Your task to perform on an android device: Go to network settings Image 0: 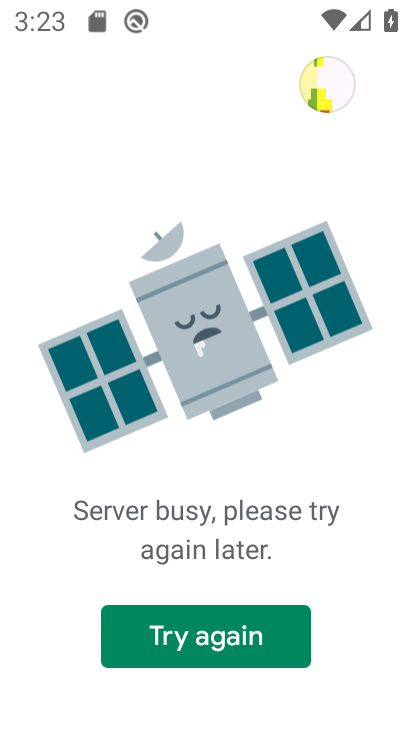
Step 0: press home button
Your task to perform on an android device: Go to network settings Image 1: 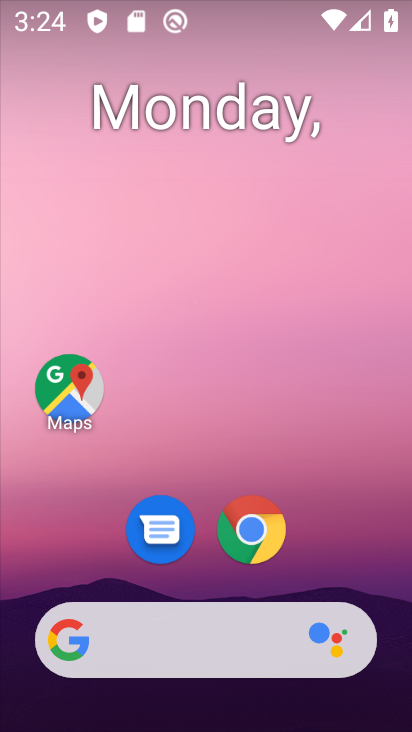
Step 1: drag from (217, 581) to (279, 233)
Your task to perform on an android device: Go to network settings Image 2: 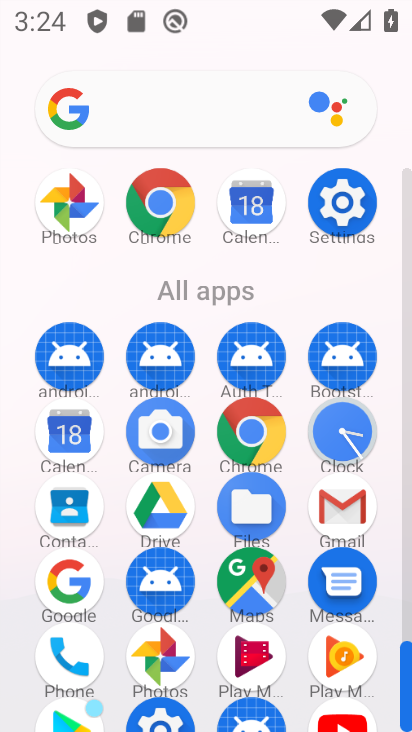
Step 2: click (332, 202)
Your task to perform on an android device: Go to network settings Image 3: 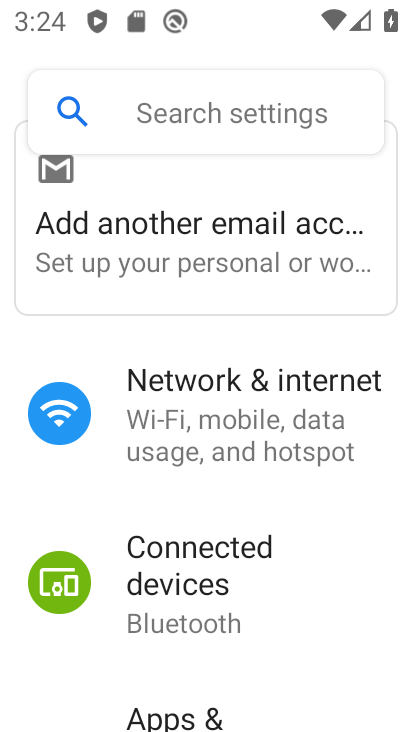
Step 3: drag from (197, 633) to (239, 450)
Your task to perform on an android device: Go to network settings Image 4: 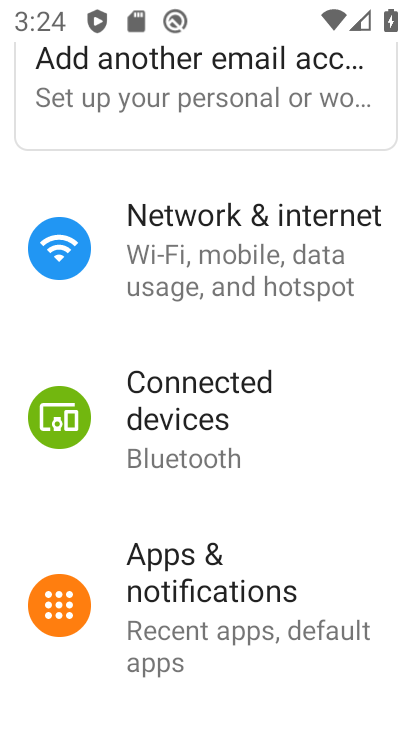
Step 4: click (222, 271)
Your task to perform on an android device: Go to network settings Image 5: 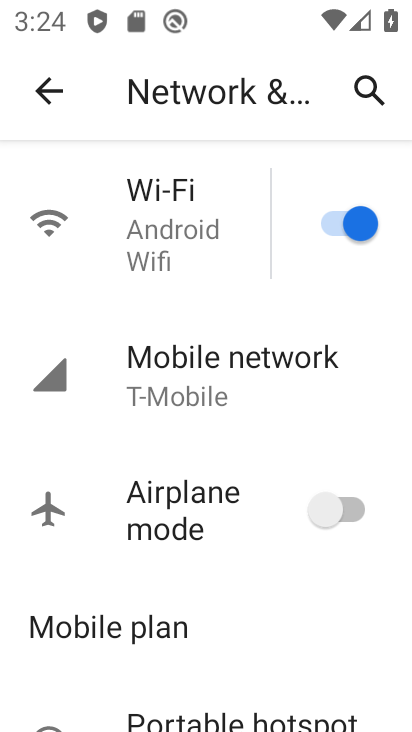
Step 5: drag from (178, 491) to (216, 300)
Your task to perform on an android device: Go to network settings Image 6: 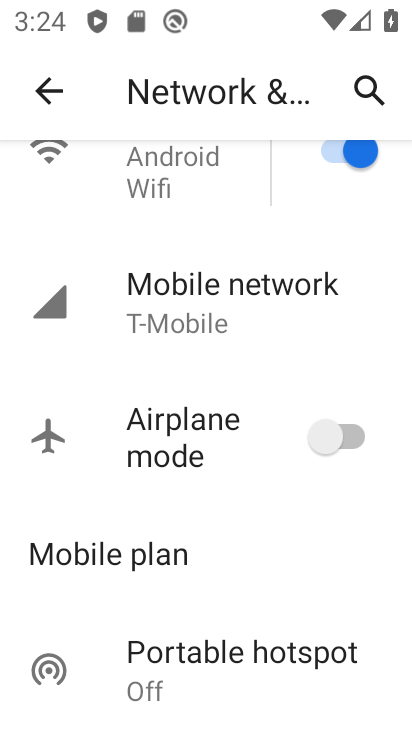
Step 6: click (188, 309)
Your task to perform on an android device: Go to network settings Image 7: 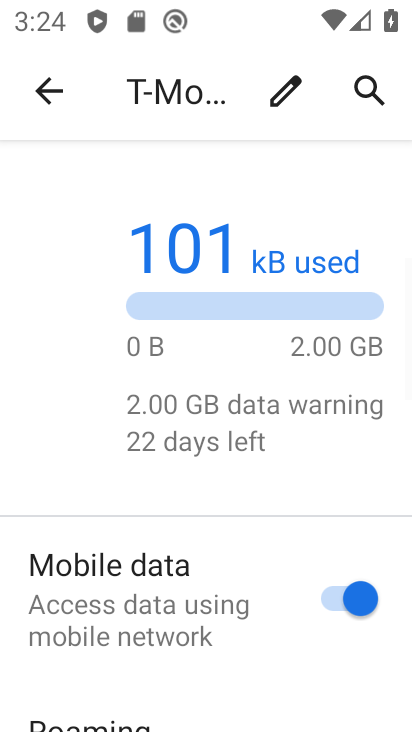
Step 7: task complete